Your task to perform on an android device: Go to privacy settings Image 0: 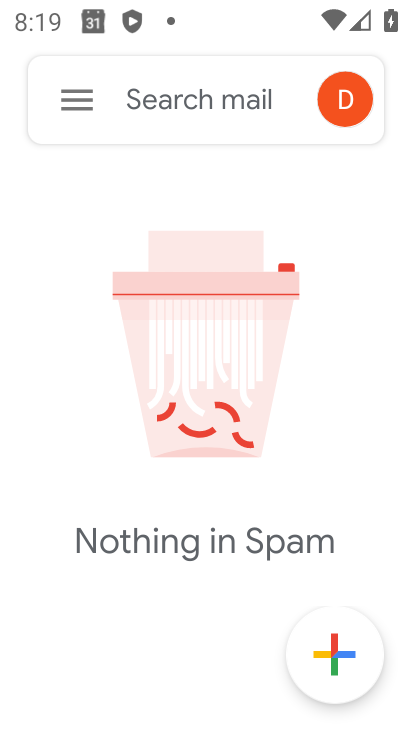
Step 0: press home button
Your task to perform on an android device: Go to privacy settings Image 1: 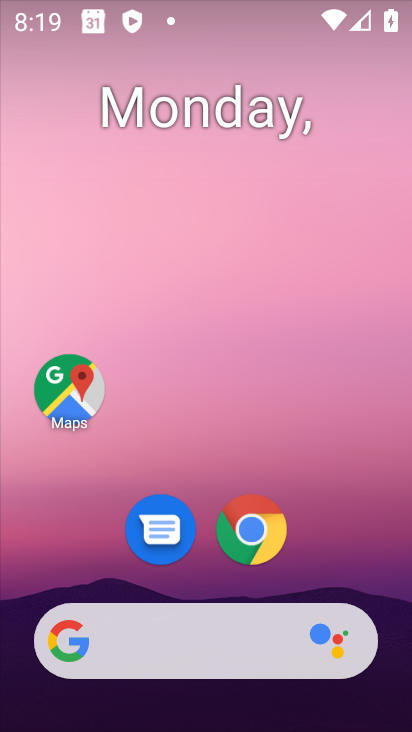
Step 1: drag from (225, 681) to (220, 258)
Your task to perform on an android device: Go to privacy settings Image 2: 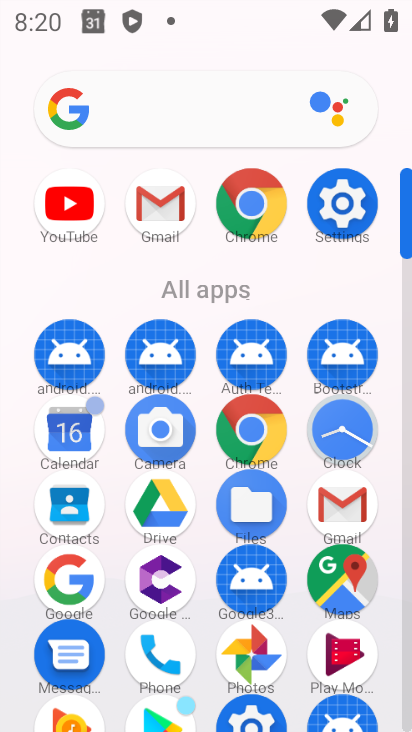
Step 2: click (367, 190)
Your task to perform on an android device: Go to privacy settings Image 3: 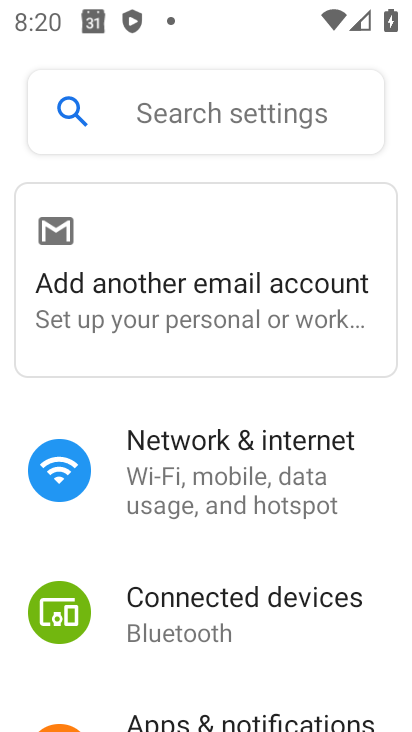
Step 3: click (188, 104)
Your task to perform on an android device: Go to privacy settings Image 4: 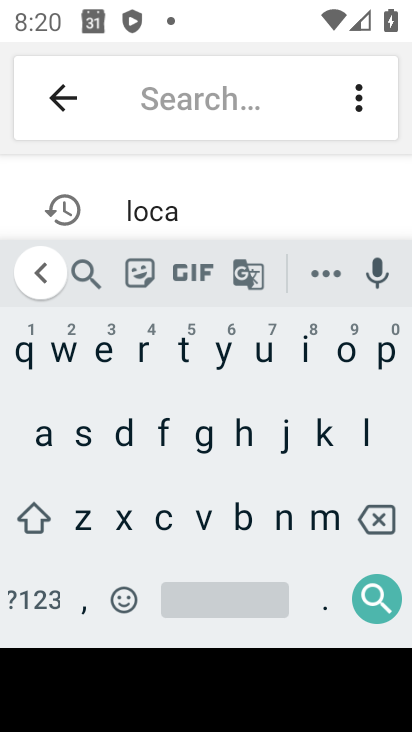
Step 4: click (399, 375)
Your task to perform on an android device: Go to privacy settings Image 5: 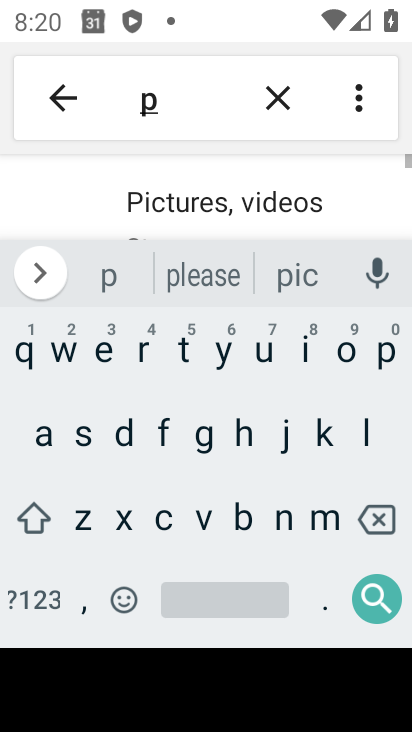
Step 5: click (148, 351)
Your task to perform on an android device: Go to privacy settings Image 6: 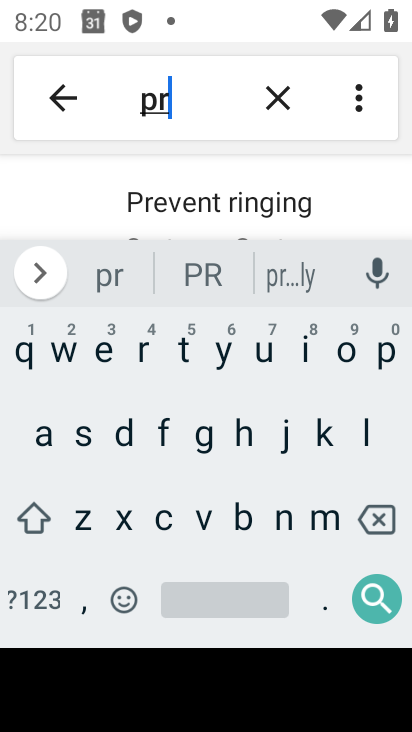
Step 6: click (307, 346)
Your task to perform on an android device: Go to privacy settings Image 7: 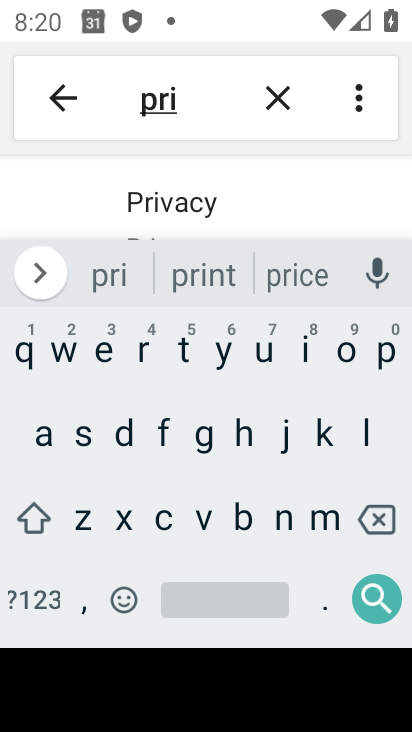
Step 7: click (216, 191)
Your task to perform on an android device: Go to privacy settings Image 8: 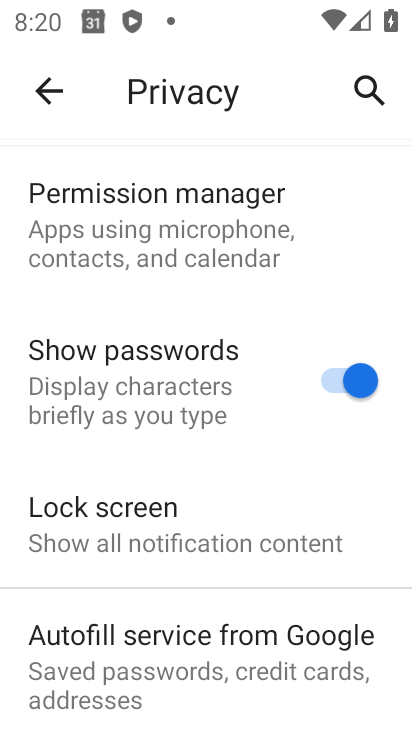
Step 8: task complete